Your task to perform on an android device: toggle location history Image 0: 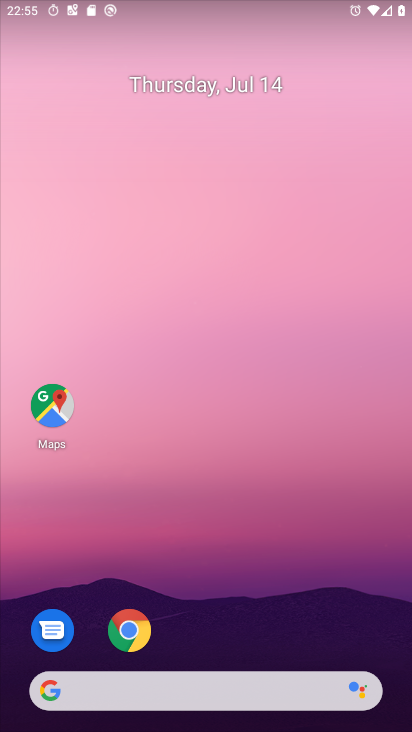
Step 0: drag from (220, 635) to (268, 213)
Your task to perform on an android device: toggle location history Image 1: 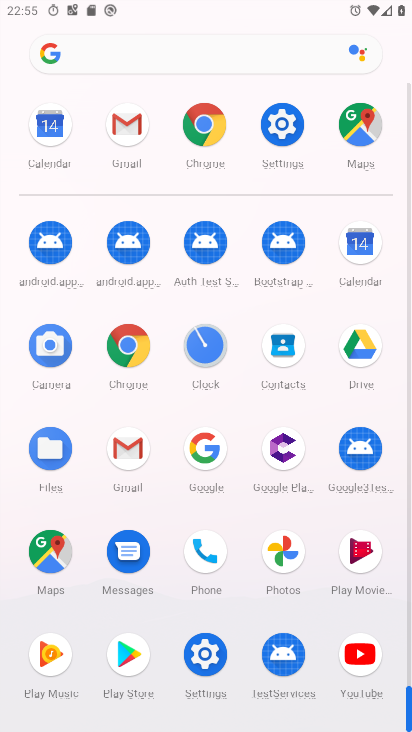
Step 1: click (271, 125)
Your task to perform on an android device: toggle location history Image 2: 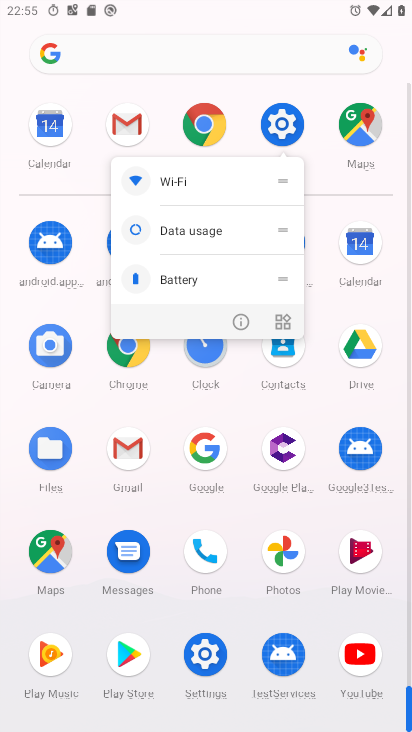
Step 2: click (239, 321)
Your task to perform on an android device: toggle location history Image 3: 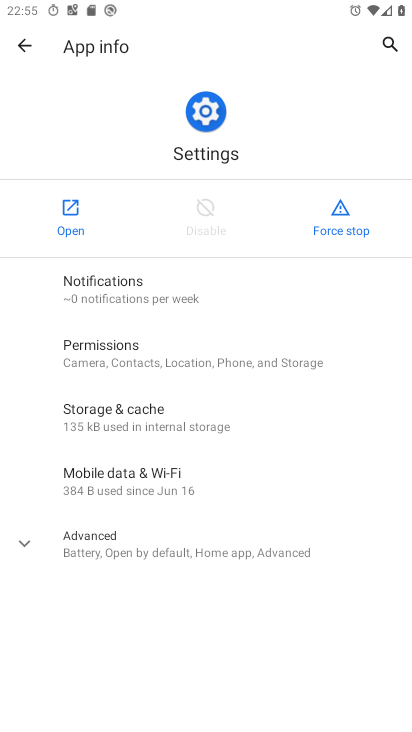
Step 3: click (76, 231)
Your task to perform on an android device: toggle location history Image 4: 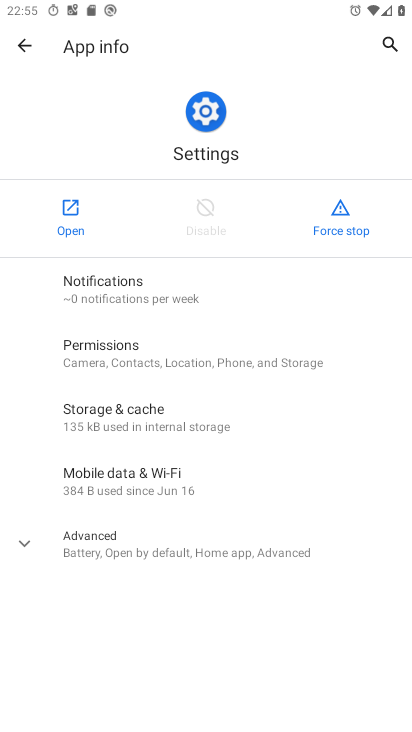
Step 4: click (76, 231)
Your task to perform on an android device: toggle location history Image 5: 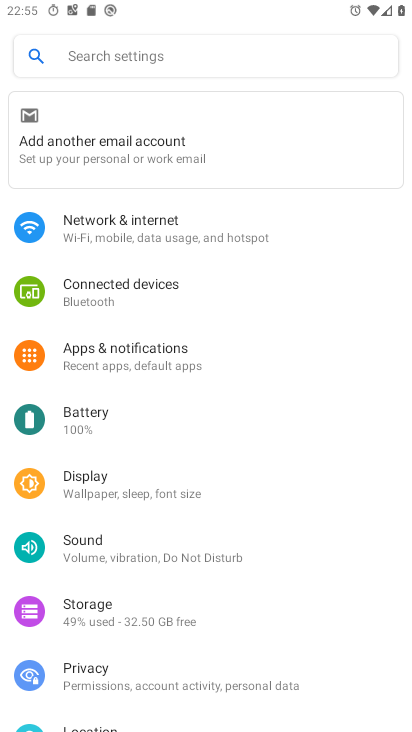
Step 5: drag from (133, 648) to (209, 242)
Your task to perform on an android device: toggle location history Image 6: 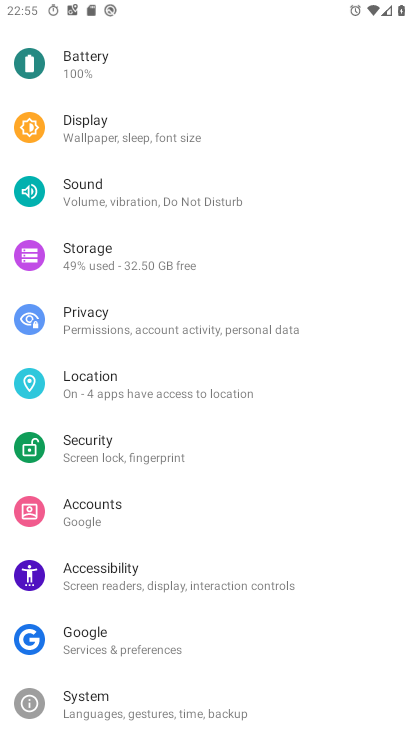
Step 6: click (126, 381)
Your task to perform on an android device: toggle location history Image 7: 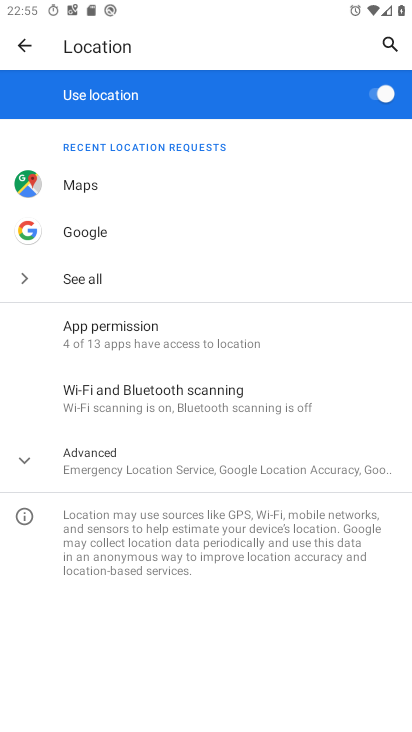
Step 7: click (138, 451)
Your task to perform on an android device: toggle location history Image 8: 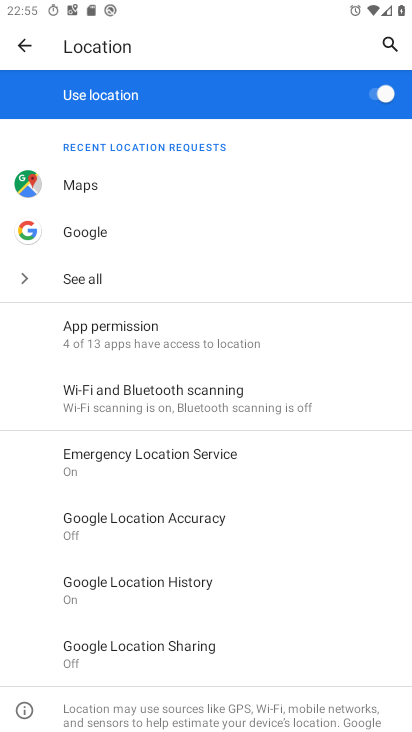
Step 8: click (187, 593)
Your task to perform on an android device: toggle location history Image 9: 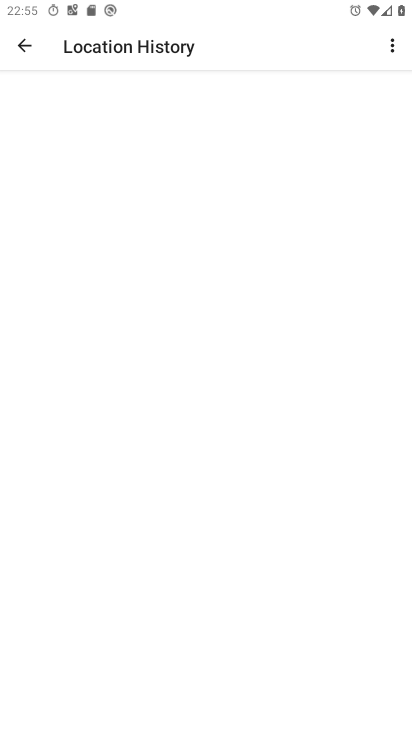
Step 9: drag from (205, 589) to (288, 296)
Your task to perform on an android device: toggle location history Image 10: 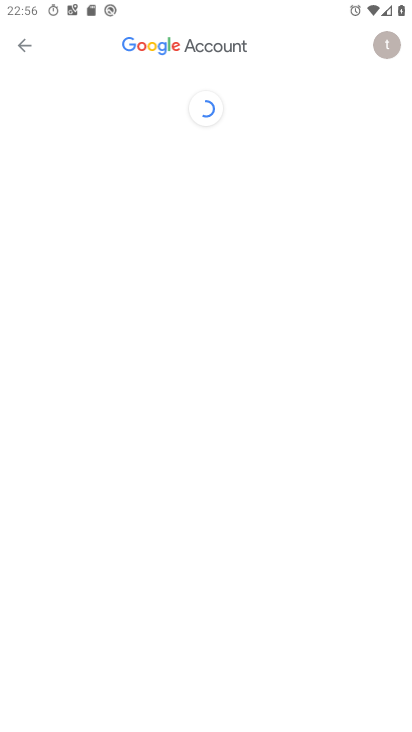
Step 10: drag from (259, 460) to (281, 300)
Your task to perform on an android device: toggle location history Image 11: 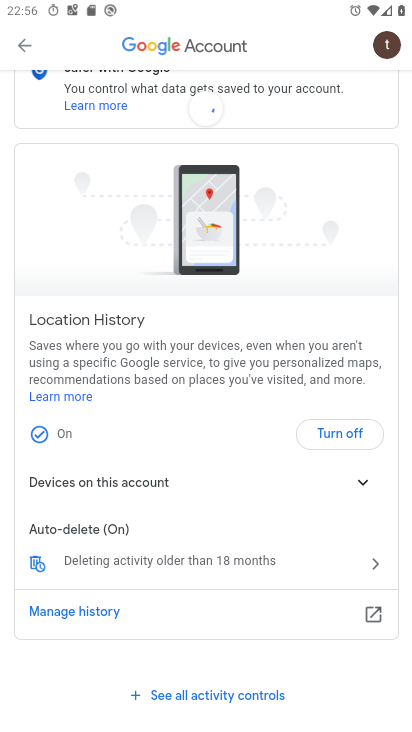
Step 11: drag from (166, 601) to (282, 303)
Your task to perform on an android device: toggle location history Image 12: 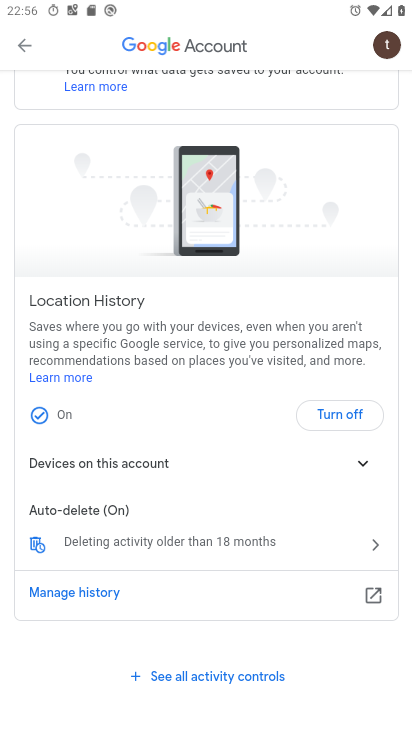
Step 12: drag from (163, 641) to (211, 395)
Your task to perform on an android device: toggle location history Image 13: 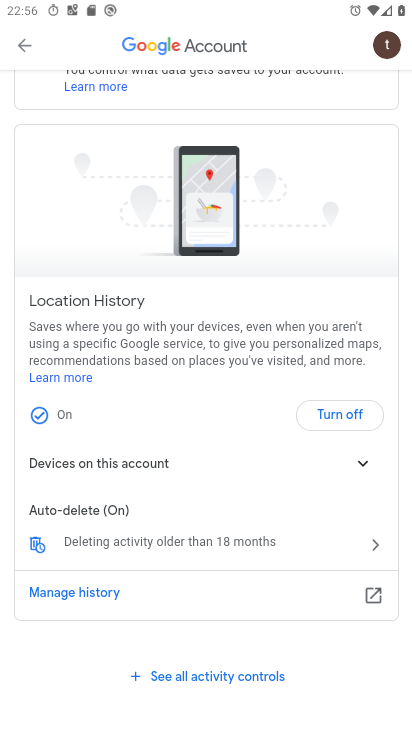
Step 13: click (349, 410)
Your task to perform on an android device: toggle location history Image 14: 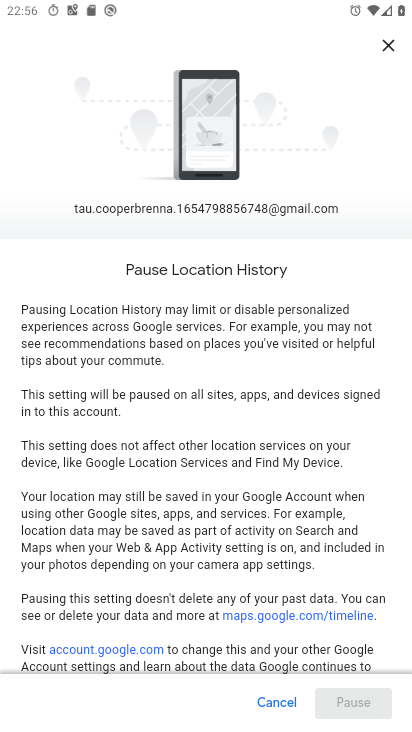
Step 14: drag from (306, 612) to (322, 333)
Your task to perform on an android device: toggle location history Image 15: 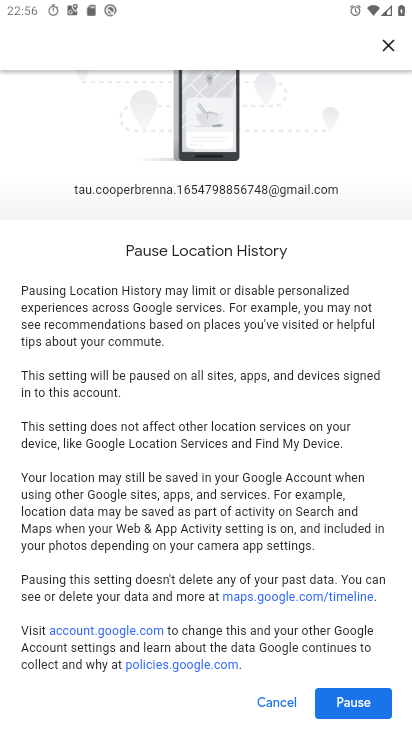
Step 15: click (367, 696)
Your task to perform on an android device: toggle location history Image 16: 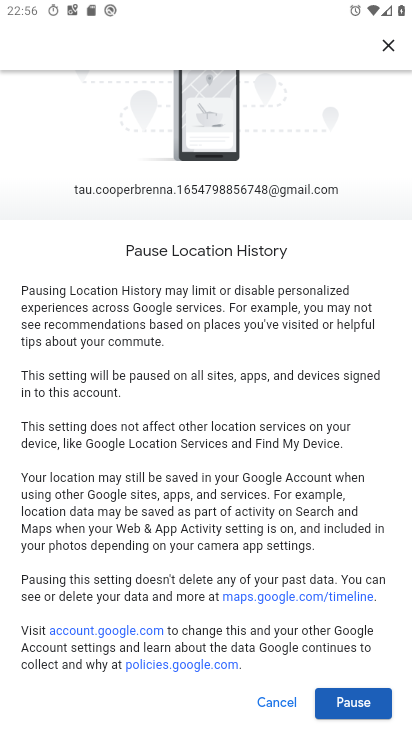
Step 16: click (324, 706)
Your task to perform on an android device: toggle location history Image 17: 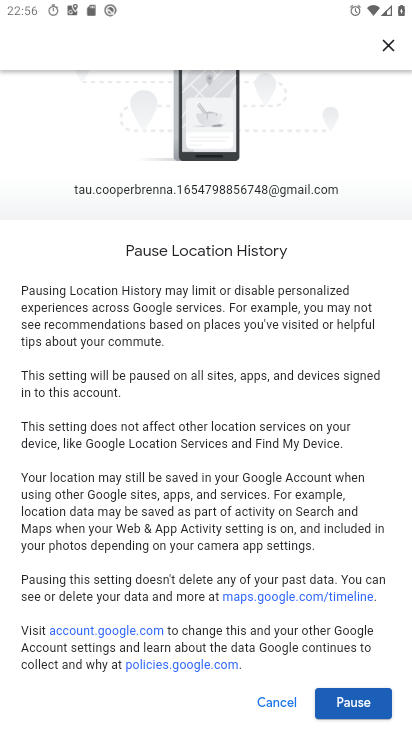
Step 17: click (336, 705)
Your task to perform on an android device: toggle location history Image 18: 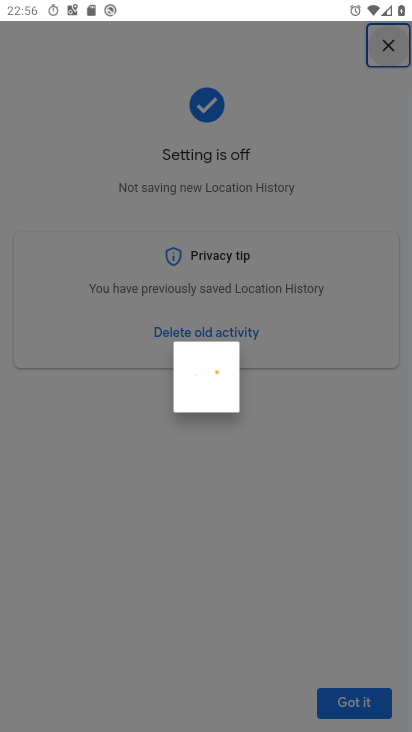
Step 18: drag from (213, 555) to (239, 142)
Your task to perform on an android device: toggle location history Image 19: 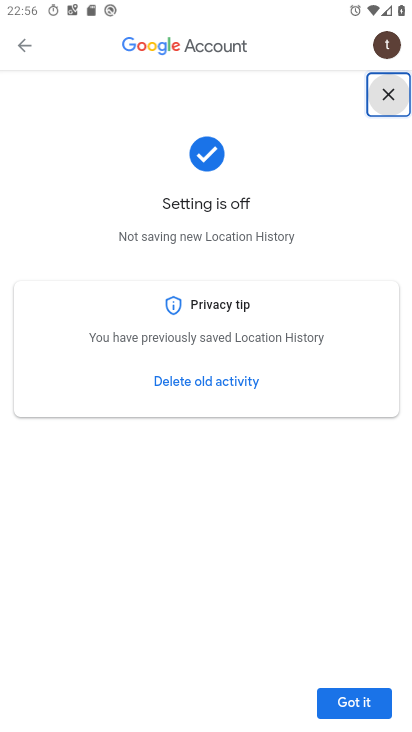
Step 19: click (345, 705)
Your task to perform on an android device: toggle location history Image 20: 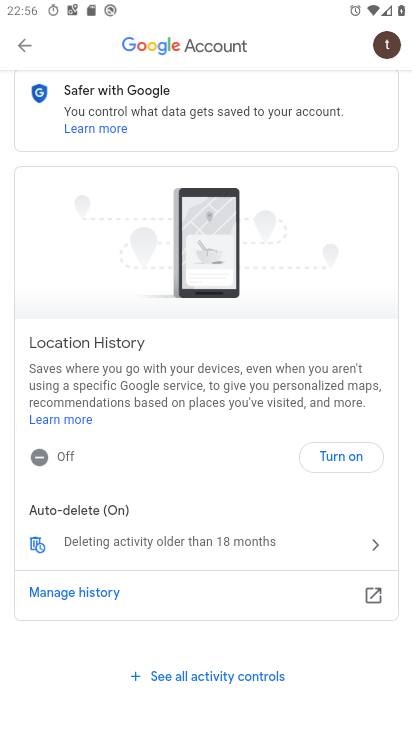
Step 20: task complete